Your task to perform on an android device: change alarm snooze length Image 0: 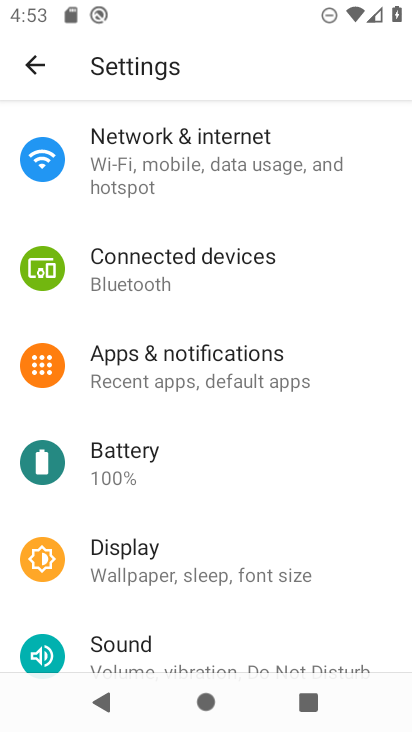
Step 0: press home button
Your task to perform on an android device: change alarm snooze length Image 1: 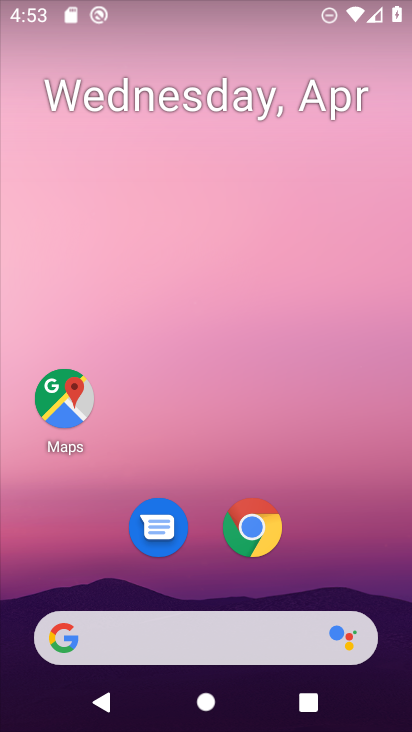
Step 1: drag from (398, 481) to (363, 9)
Your task to perform on an android device: change alarm snooze length Image 2: 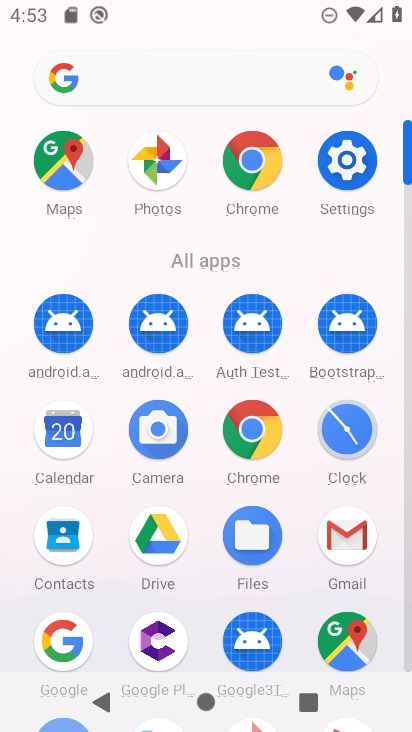
Step 2: click (348, 435)
Your task to perform on an android device: change alarm snooze length Image 3: 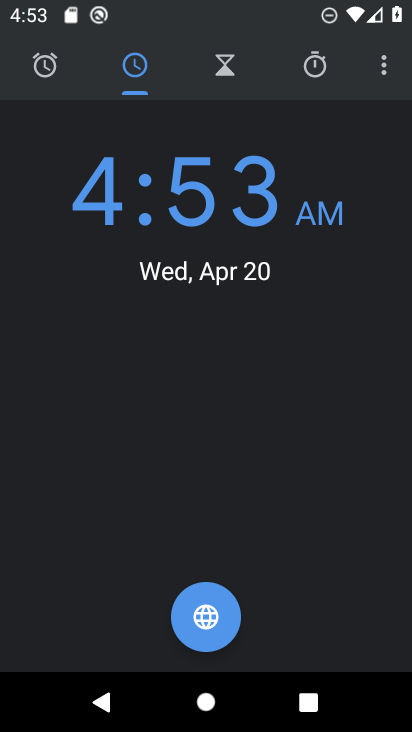
Step 3: click (389, 73)
Your task to perform on an android device: change alarm snooze length Image 4: 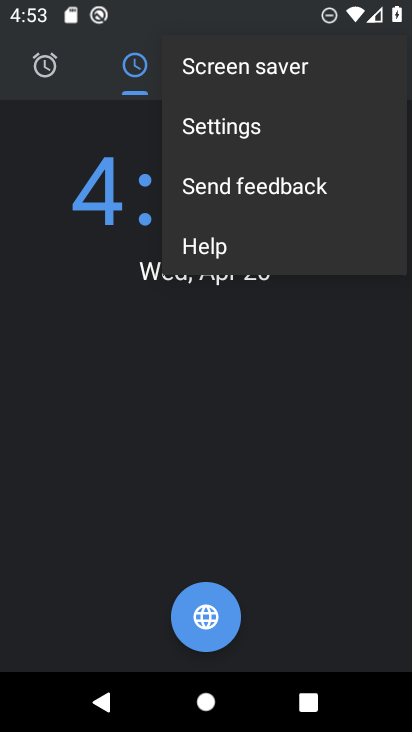
Step 4: click (238, 135)
Your task to perform on an android device: change alarm snooze length Image 5: 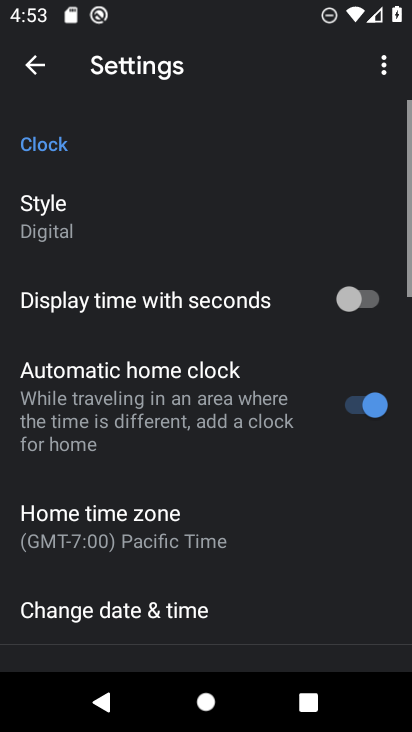
Step 5: drag from (241, 563) to (178, 114)
Your task to perform on an android device: change alarm snooze length Image 6: 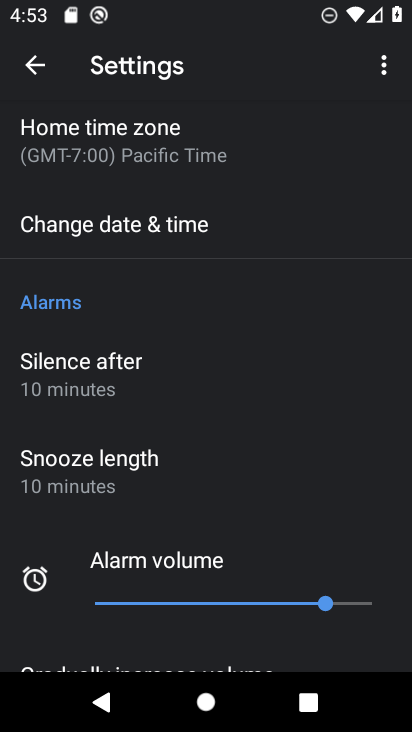
Step 6: drag from (180, 481) to (164, 169)
Your task to perform on an android device: change alarm snooze length Image 7: 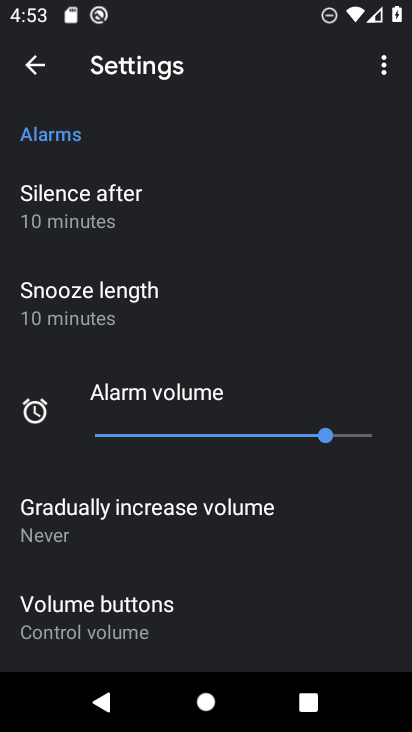
Step 7: click (62, 289)
Your task to perform on an android device: change alarm snooze length Image 8: 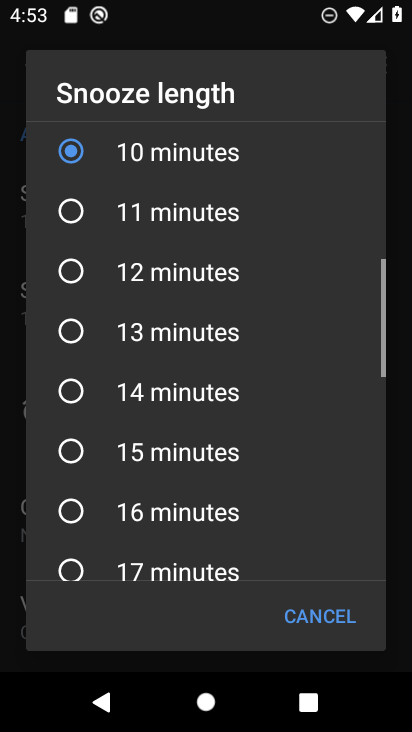
Step 8: click (73, 331)
Your task to perform on an android device: change alarm snooze length Image 9: 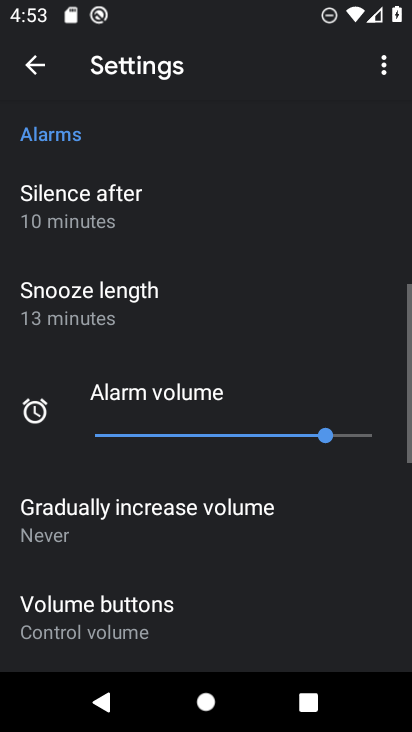
Step 9: task complete